Your task to perform on an android device: Do I have any events this weekend? Image 0: 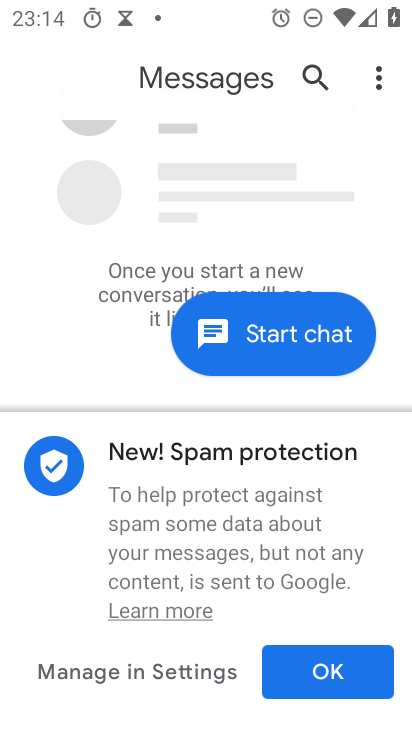
Step 0: press home button
Your task to perform on an android device: Do I have any events this weekend? Image 1: 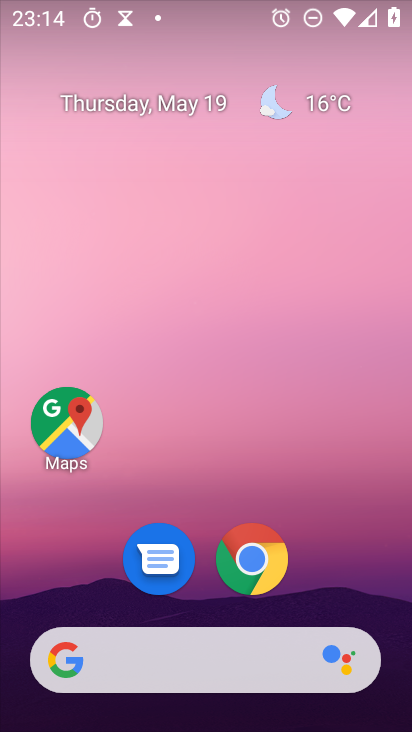
Step 1: drag from (223, 729) to (242, 303)
Your task to perform on an android device: Do I have any events this weekend? Image 2: 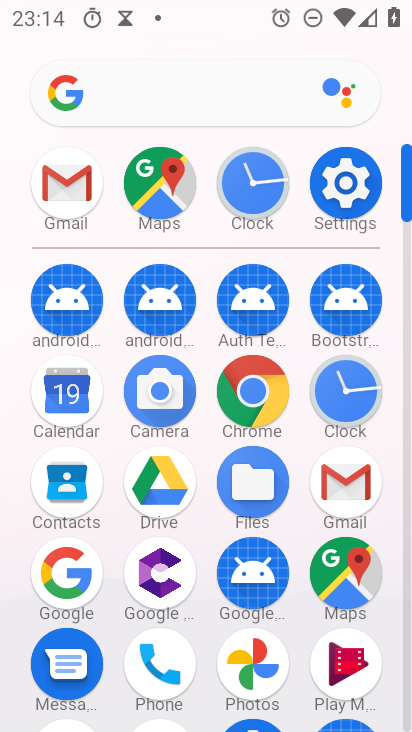
Step 2: click (54, 404)
Your task to perform on an android device: Do I have any events this weekend? Image 3: 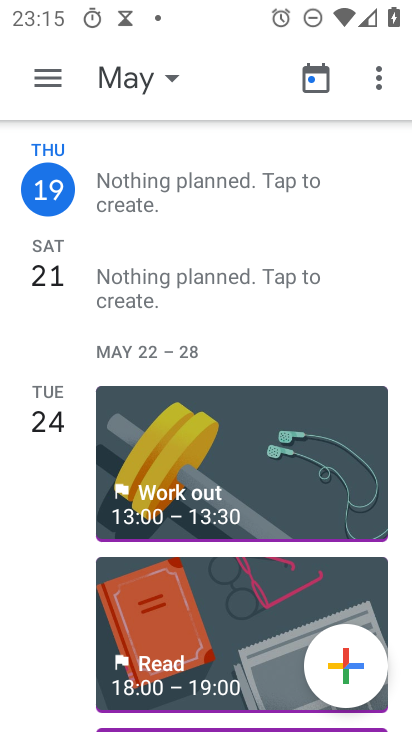
Step 3: click (171, 77)
Your task to perform on an android device: Do I have any events this weekend? Image 4: 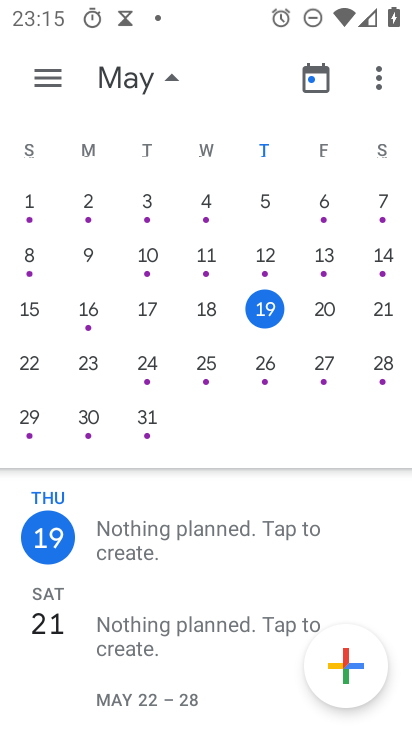
Step 4: click (389, 307)
Your task to perform on an android device: Do I have any events this weekend? Image 5: 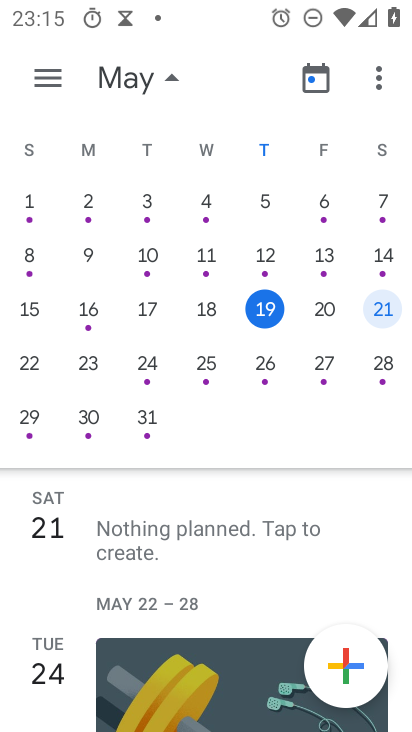
Step 5: click (389, 307)
Your task to perform on an android device: Do I have any events this weekend? Image 6: 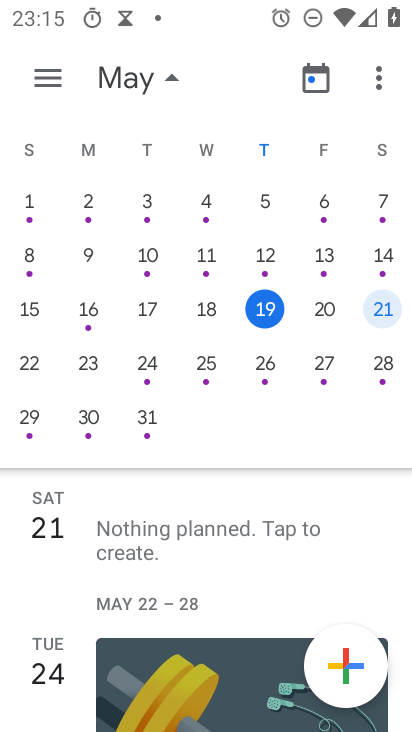
Step 6: click (381, 302)
Your task to perform on an android device: Do I have any events this weekend? Image 7: 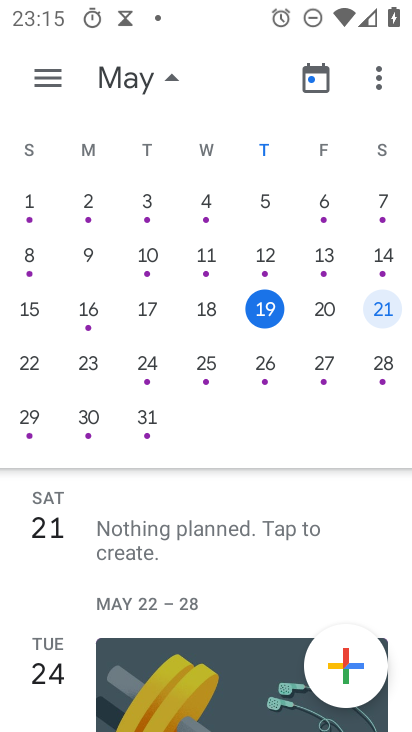
Step 7: click (169, 73)
Your task to perform on an android device: Do I have any events this weekend? Image 8: 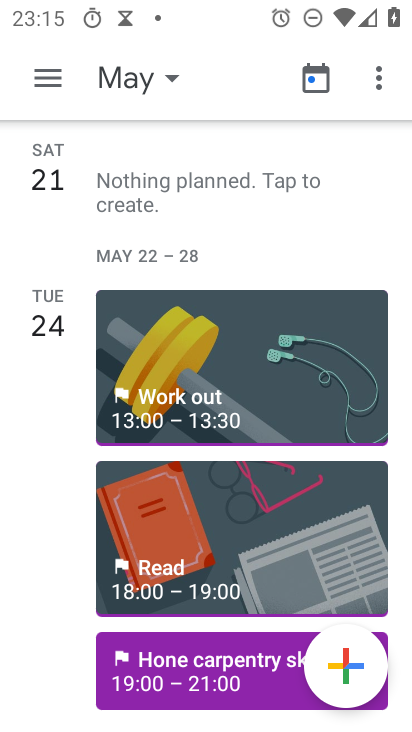
Step 8: task complete